Your task to perform on an android device: Go to ESPN.com Image 0: 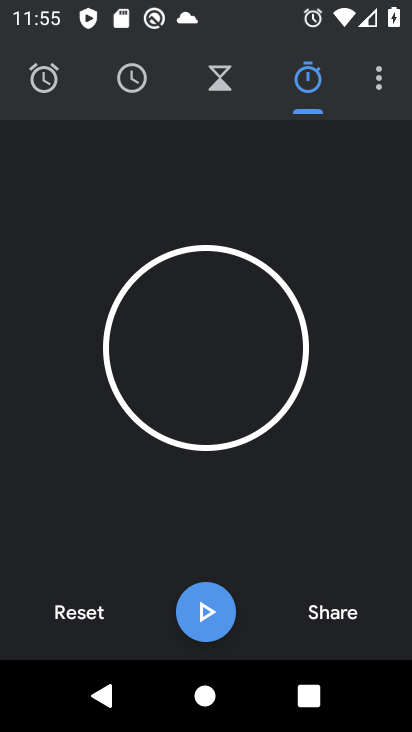
Step 0: press back button
Your task to perform on an android device: Go to ESPN.com Image 1: 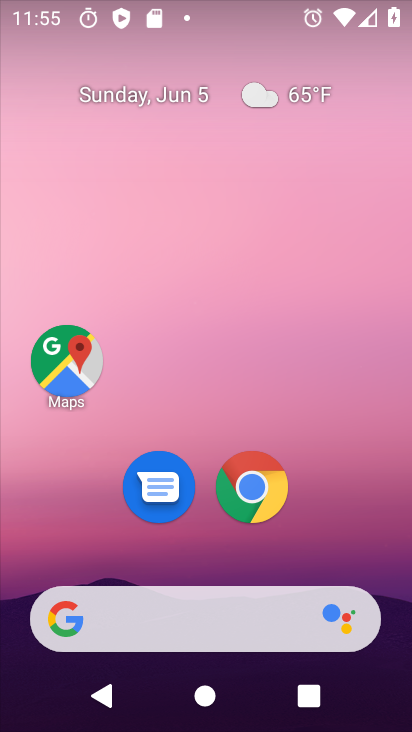
Step 1: click (250, 488)
Your task to perform on an android device: Go to ESPN.com Image 2: 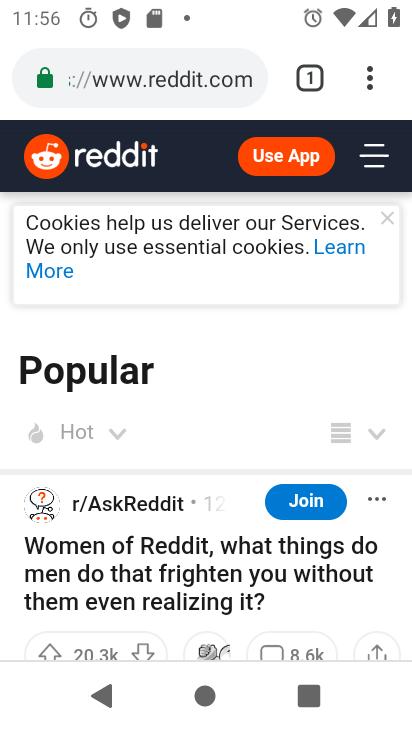
Step 2: click (239, 76)
Your task to perform on an android device: Go to ESPN.com Image 3: 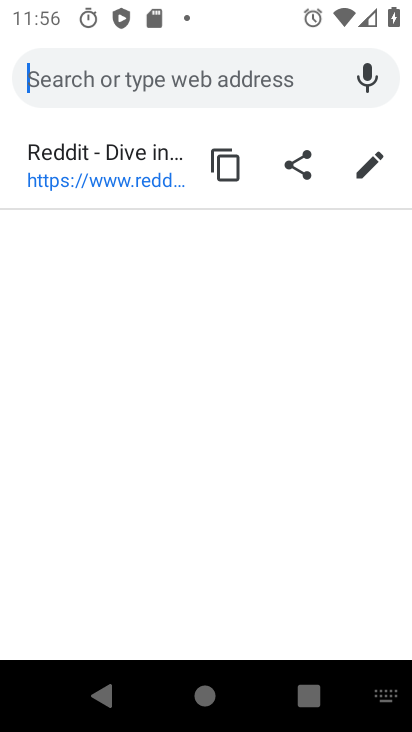
Step 3: type "ESPN.com"
Your task to perform on an android device: Go to ESPN.com Image 4: 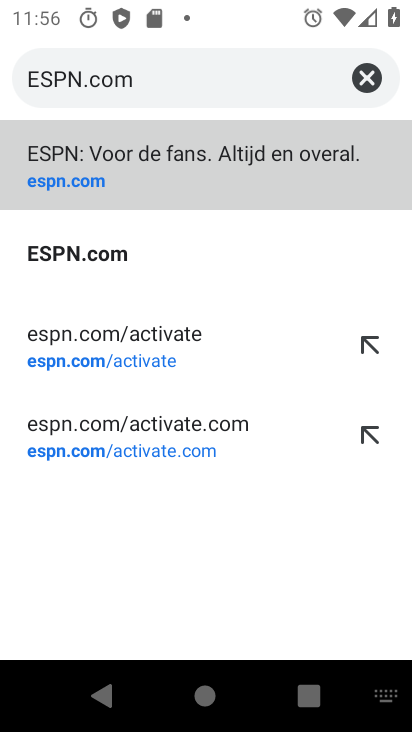
Step 4: click (97, 256)
Your task to perform on an android device: Go to ESPN.com Image 5: 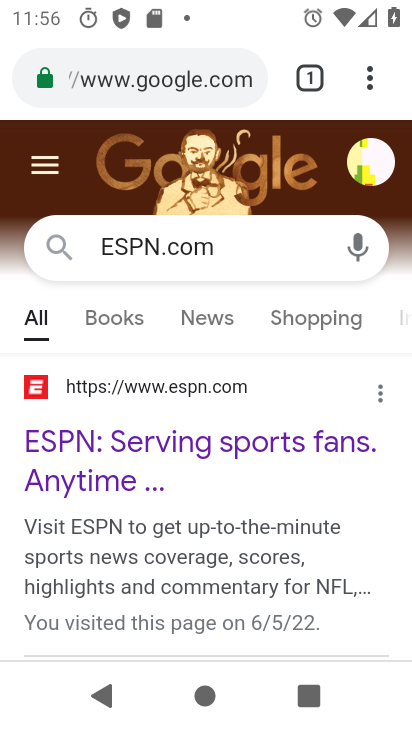
Step 5: click (114, 438)
Your task to perform on an android device: Go to ESPN.com Image 6: 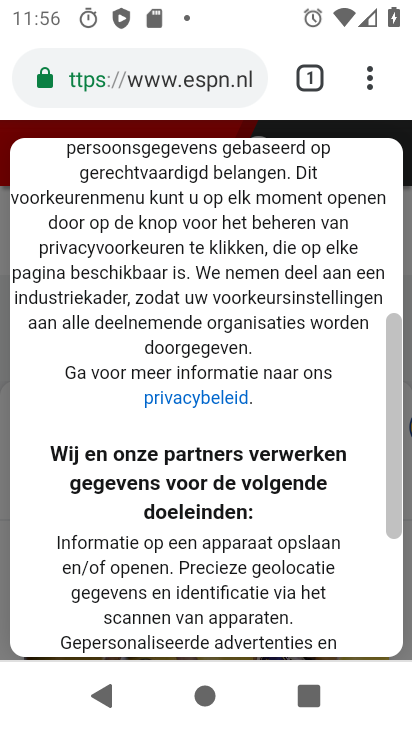
Step 6: task complete